Your task to perform on an android device: change notification settings in the gmail app Image 0: 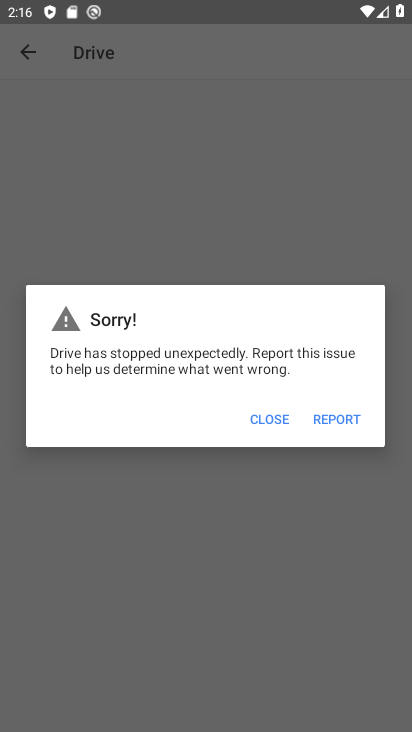
Step 0: press home button
Your task to perform on an android device: change notification settings in the gmail app Image 1: 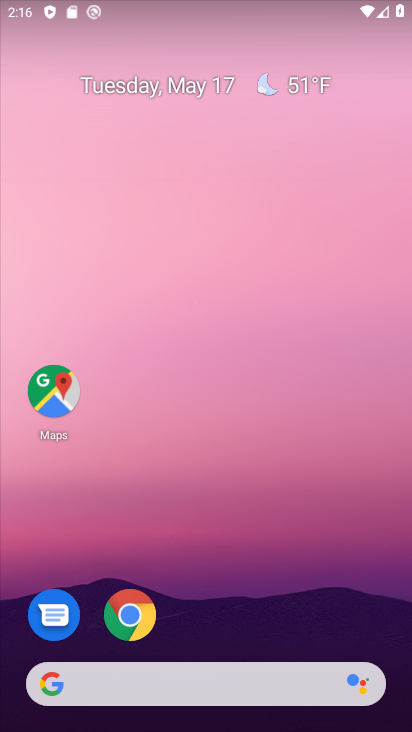
Step 1: drag from (224, 632) to (294, 113)
Your task to perform on an android device: change notification settings in the gmail app Image 2: 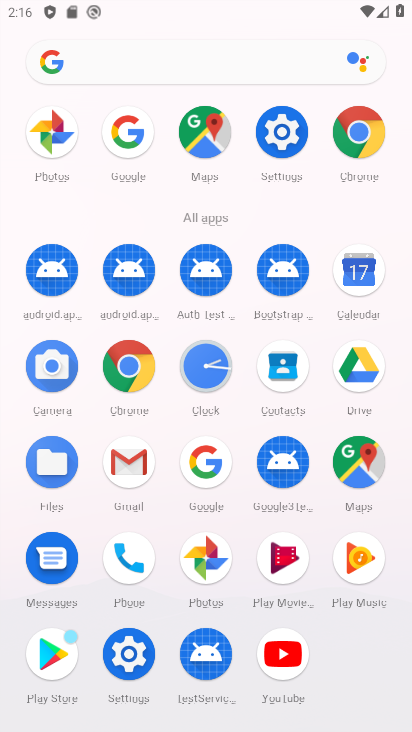
Step 2: click (130, 453)
Your task to perform on an android device: change notification settings in the gmail app Image 3: 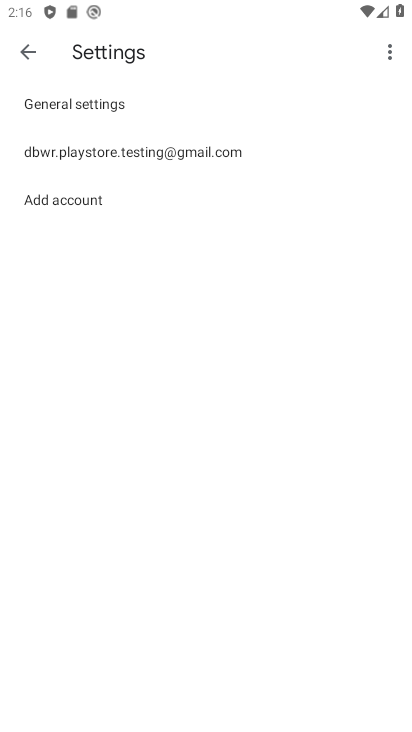
Step 3: click (136, 104)
Your task to perform on an android device: change notification settings in the gmail app Image 4: 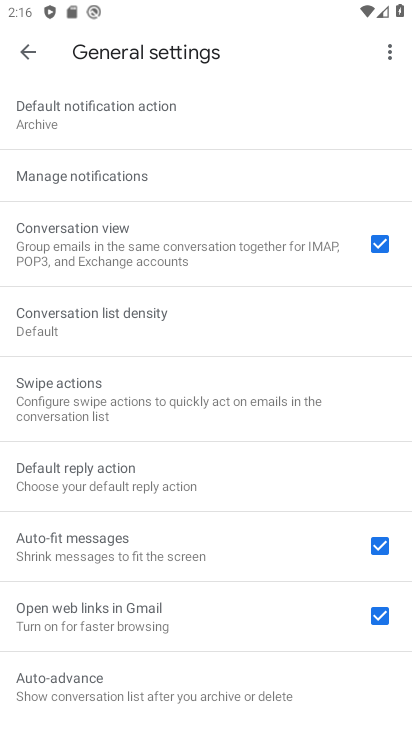
Step 4: click (176, 176)
Your task to perform on an android device: change notification settings in the gmail app Image 5: 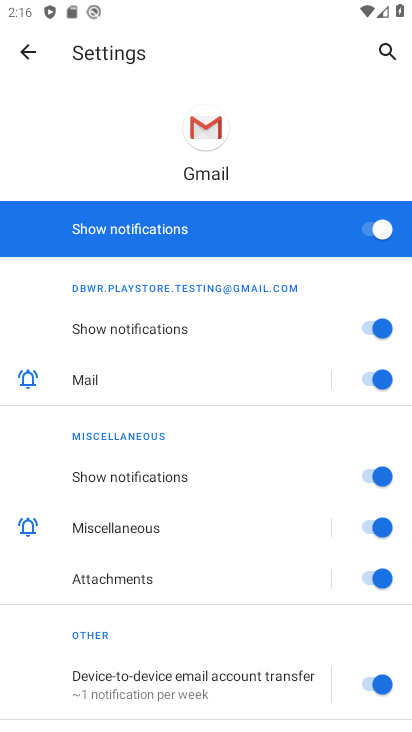
Step 5: click (369, 226)
Your task to perform on an android device: change notification settings in the gmail app Image 6: 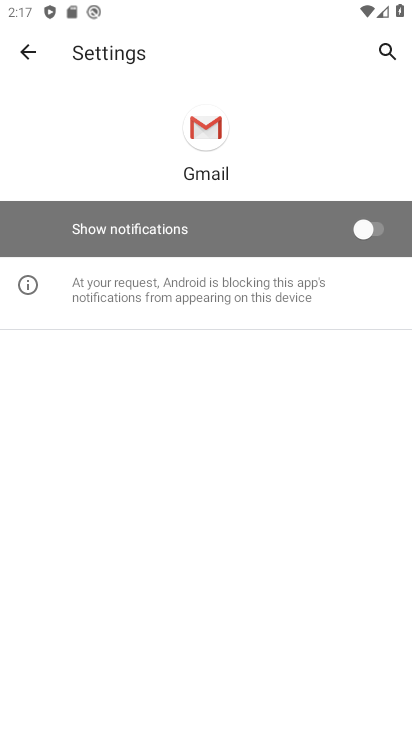
Step 6: task complete